Your task to perform on an android device: Open a new Chrome tab Image 0: 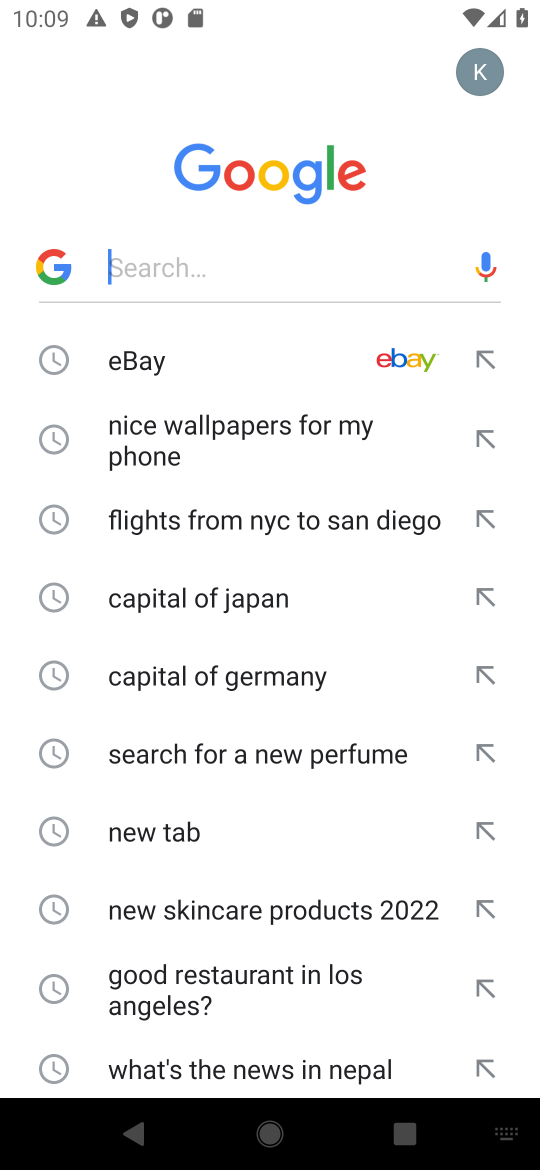
Step 0: press home button
Your task to perform on an android device: Open a new Chrome tab Image 1: 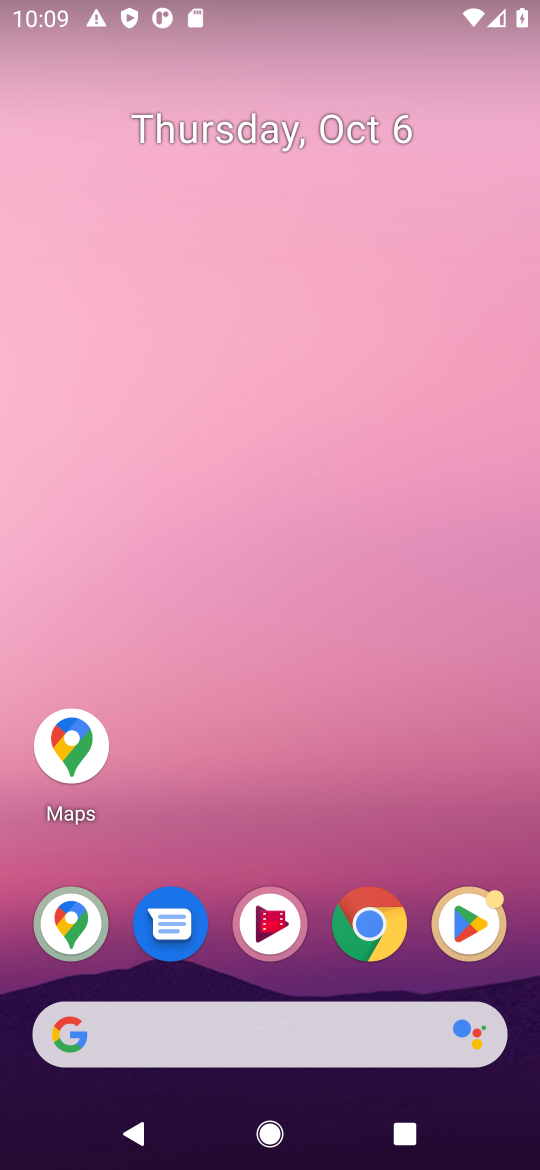
Step 1: click (362, 920)
Your task to perform on an android device: Open a new Chrome tab Image 2: 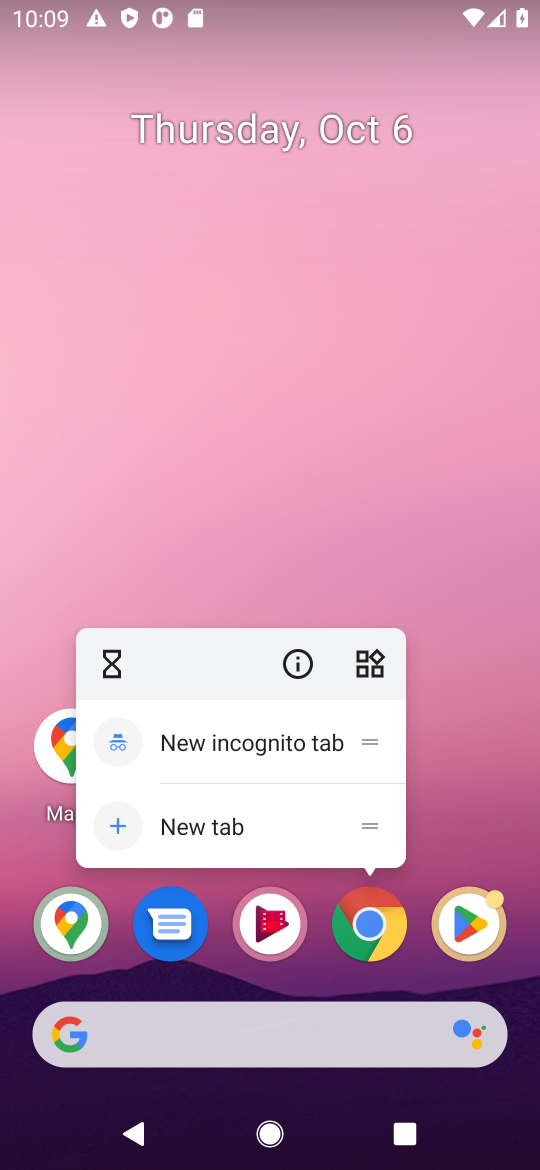
Step 2: click (361, 924)
Your task to perform on an android device: Open a new Chrome tab Image 3: 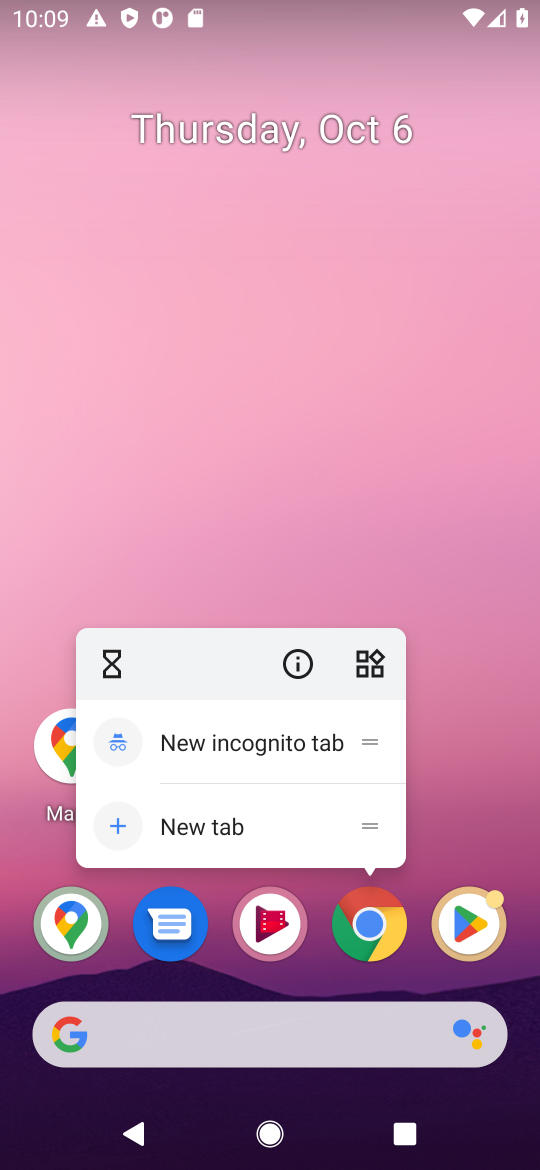
Step 3: click (371, 924)
Your task to perform on an android device: Open a new Chrome tab Image 4: 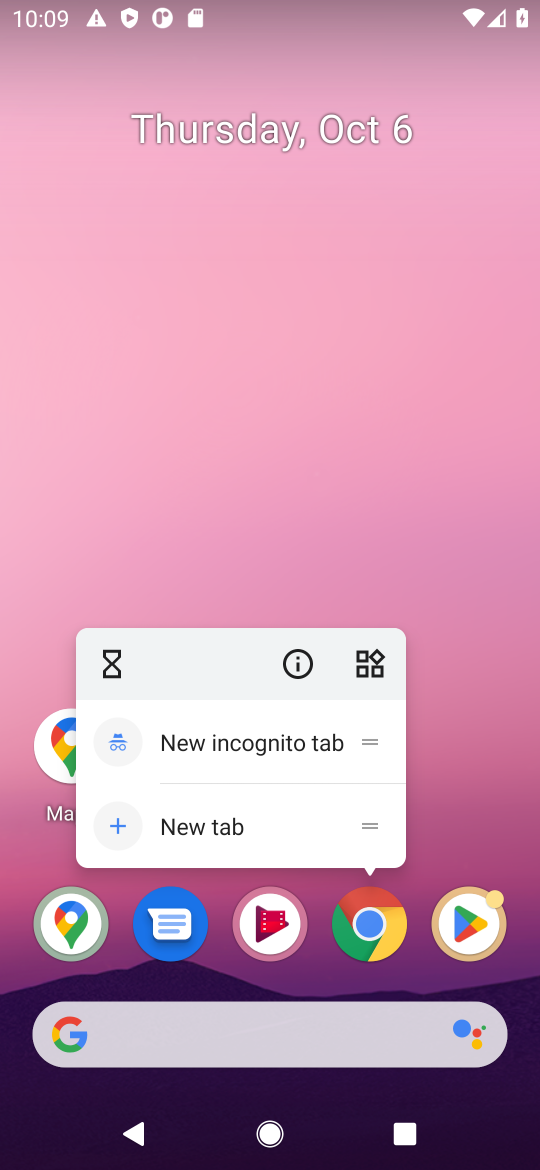
Step 4: click (371, 924)
Your task to perform on an android device: Open a new Chrome tab Image 5: 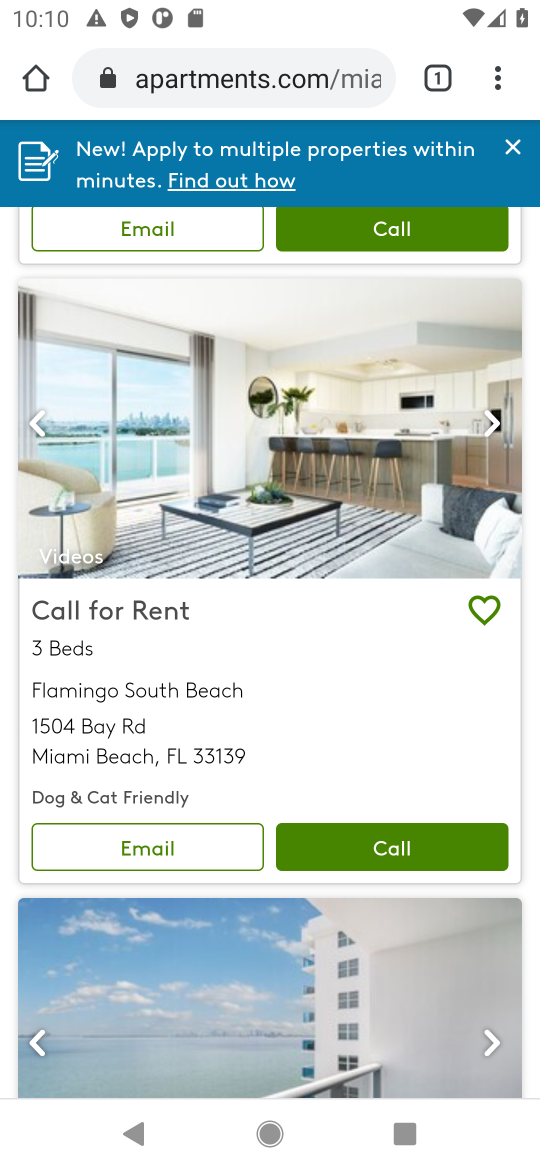
Step 5: task complete